Your task to perform on an android device: Go to display settings Image 0: 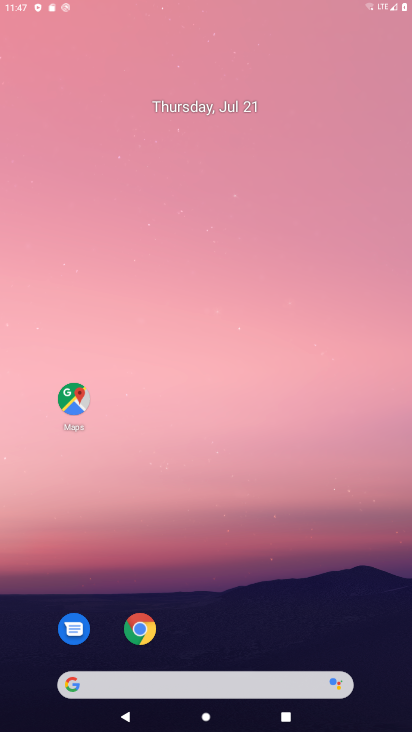
Step 0: click (160, 61)
Your task to perform on an android device: Go to display settings Image 1: 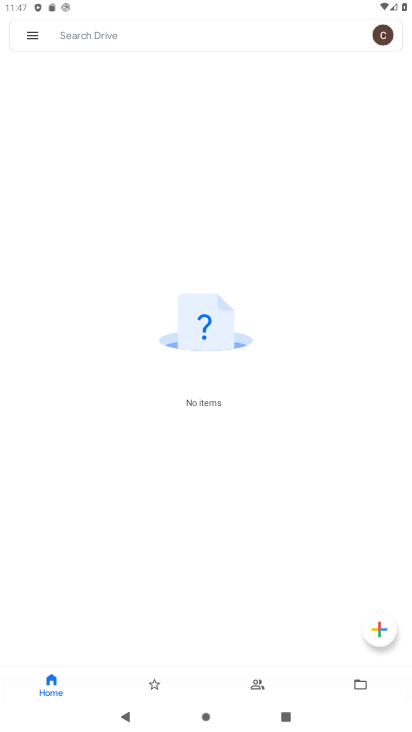
Step 1: drag from (227, 440) to (219, 53)
Your task to perform on an android device: Go to display settings Image 2: 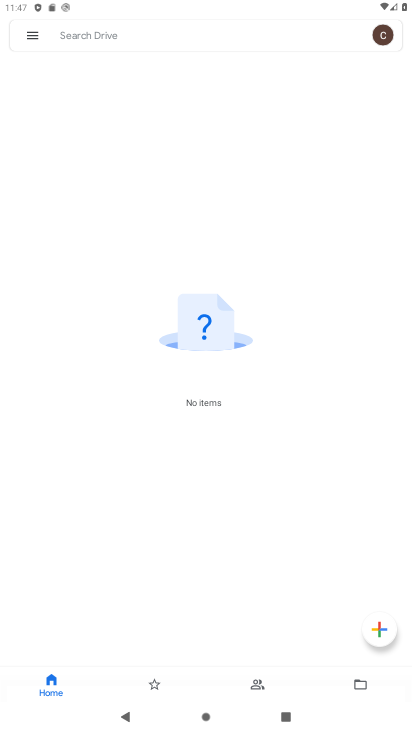
Step 2: drag from (306, 467) to (179, 100)
Your task to perform on an android device: Go to display settings Image 3: 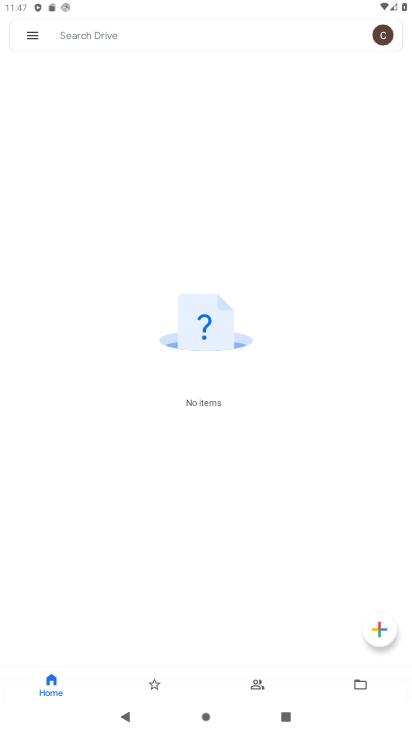
Step 3: click (170, 48)
Your task to perform on an android device: Go to display settings Image 4: 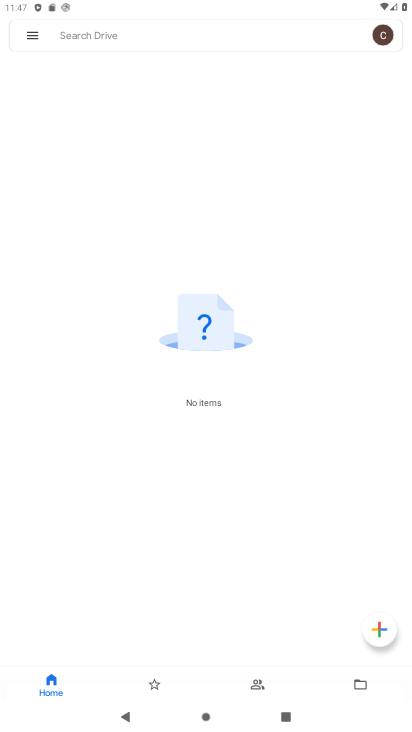
Step 4: press back button
Your task to perform on an android device: Go to display settings Image 5: 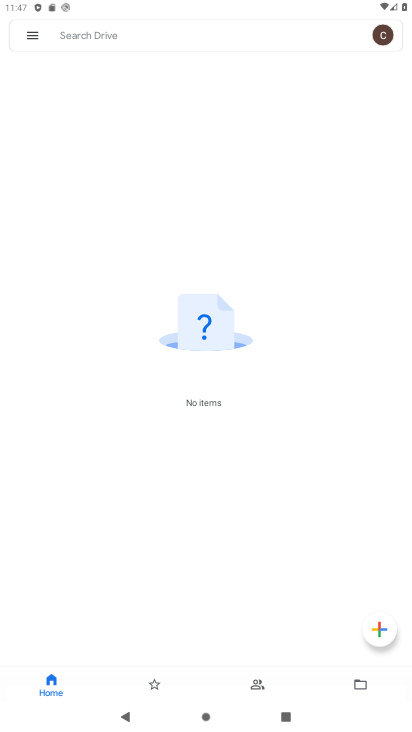
Step 5: drag from (162, 620) to (145, 175)
Your task to perform on an android device: Go to display settings Image 6: 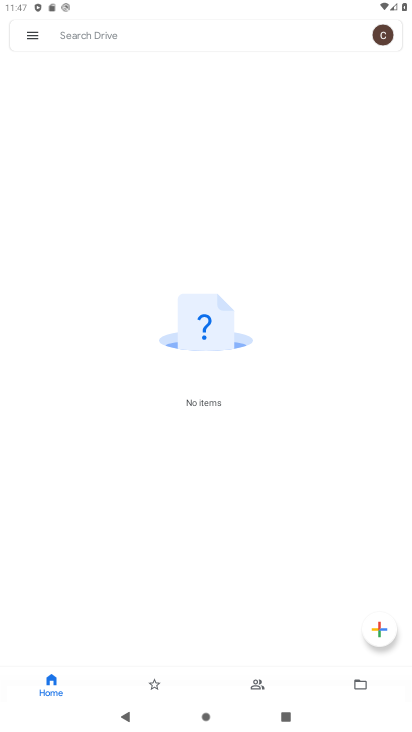
Step 6: press back button
Your task to perform on an android device: Go to display settings Image 7: 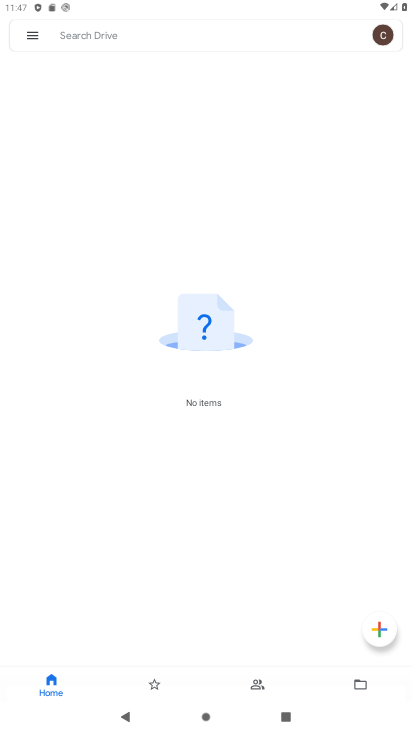
Step 7: press back button
Your task to perform on an android device: Go to display settings Image 8: 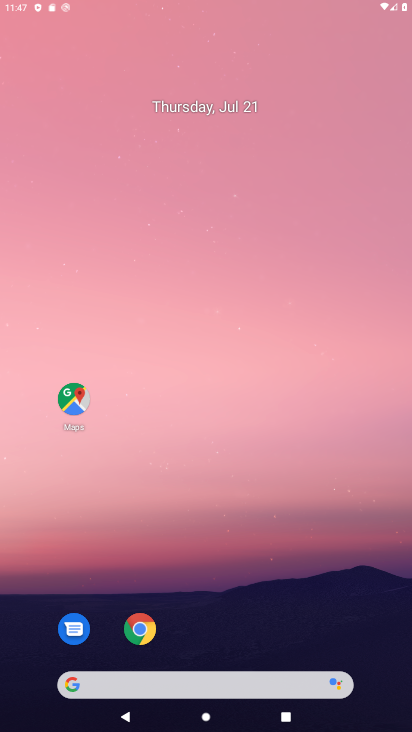
Step 8: press back button
Your task to perform on an android device: Go to display settings Image 9: 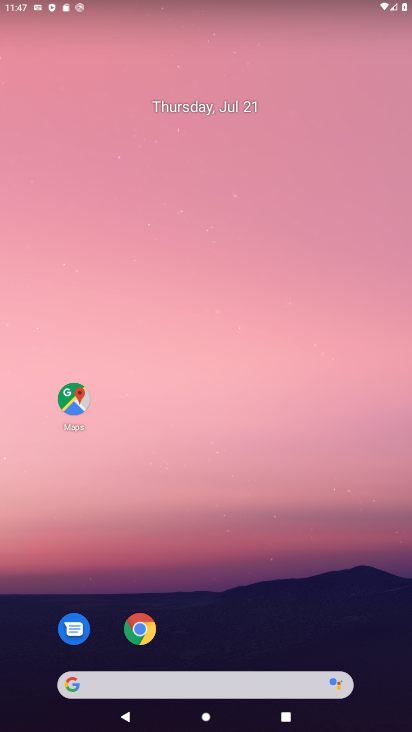
Step 9: drag from (225, 416) to (190, 155)
Your task to perform on an android device: Go to display settings Image 10: 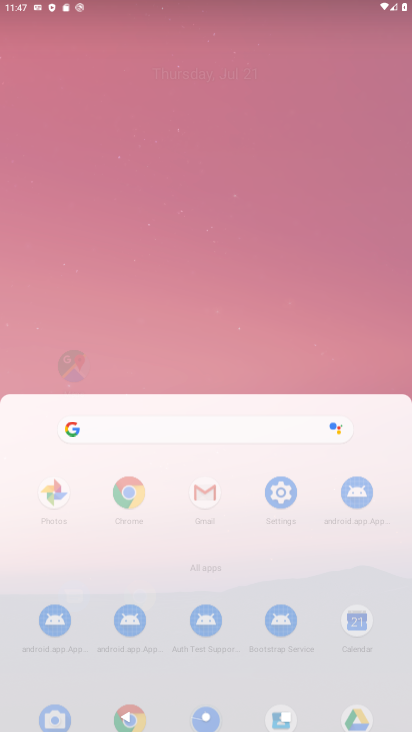
Step 10: drag from (229, 509) to (170, 156)
Your task to perform on an android device: Go to display settings Image 11: 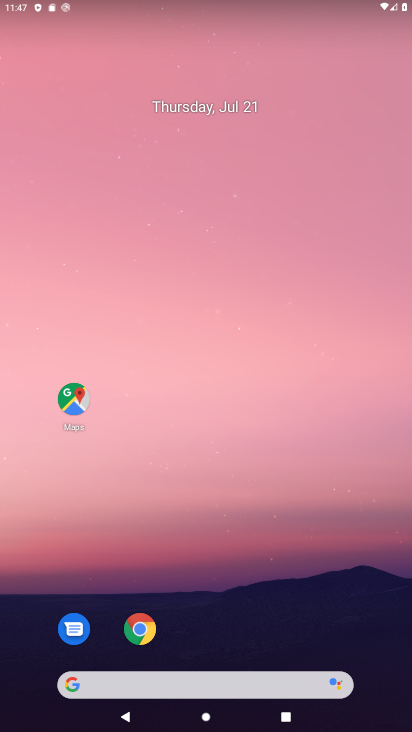
Step 11: drag from (220, 493) to (173, 166)
Your task to perform on an android device: Go to display settings Image 12: 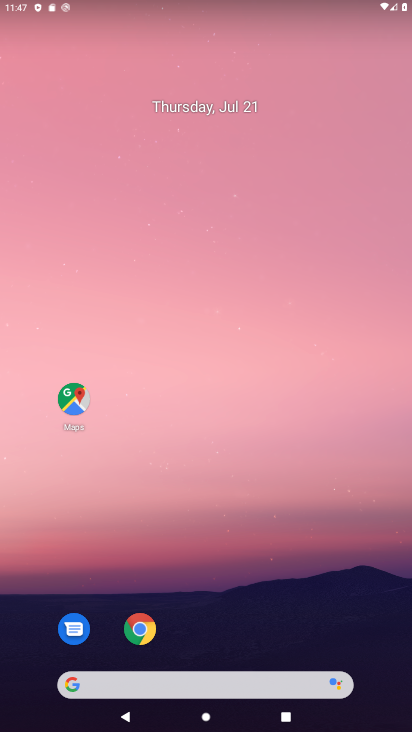
Step 12: drag from (237, 506) to (252, 21)
Your task to perform on an android device: Go to display settings Image 13: 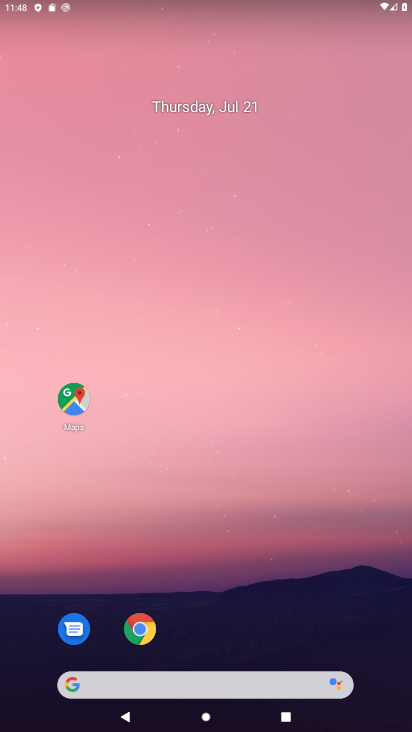
Step 13: drag from (272, 371) to (247, 264)
Your task to perform on an android device: Go to display settings Image 14: 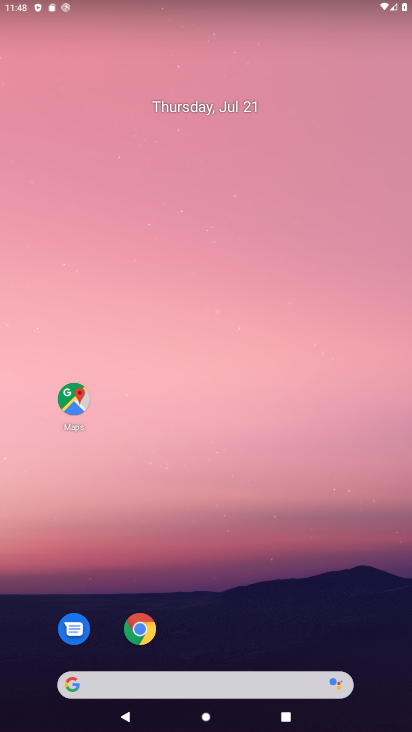
Step 14: drag from (256, 533) to (220, 311)
Your task to perform on an android device: Go to display settings Image 15: 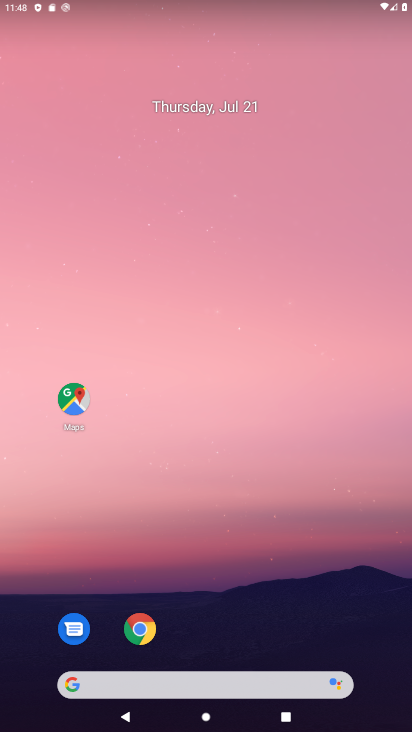
Step 15: drag from (231, 420) to (195, 101)
Your task to perform on an android device: Go to display settings Image 16: 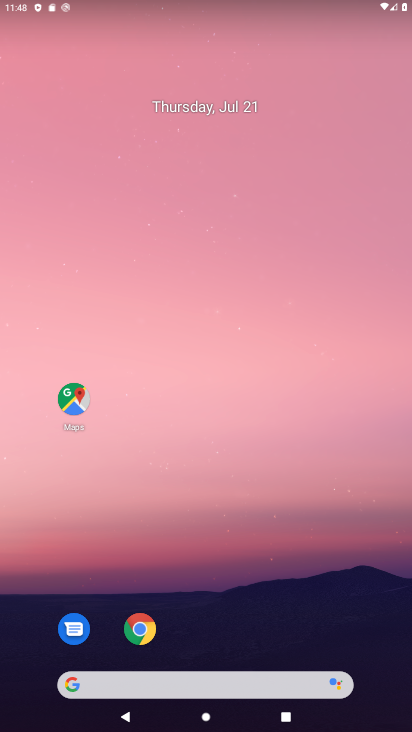
Step 16: drag from (215, 423) to (191, 157)
Your task to perform on an android device: Go to display settings Image 17: 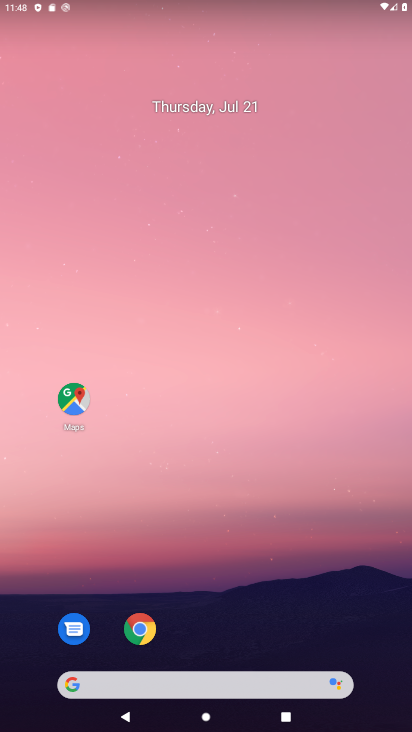
Step 17: drag from (193, 384) to (167, 95)
Your task to perform on an android device: Go to display settings Image 18: 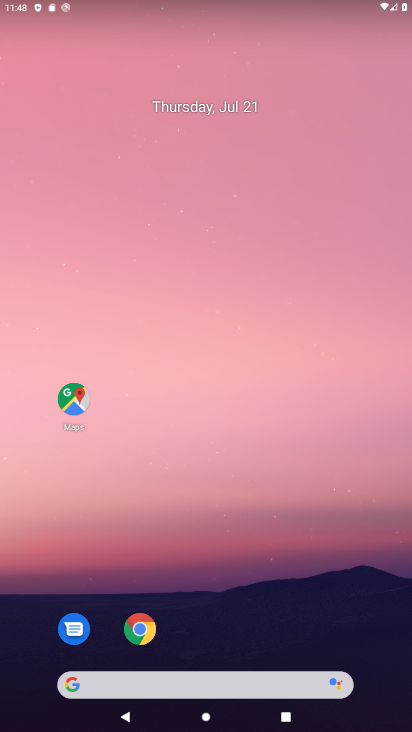
Step 18: drag from (167, 467) to (153, 183)
Your task to perform on an android device: Go to display settings Image 19: 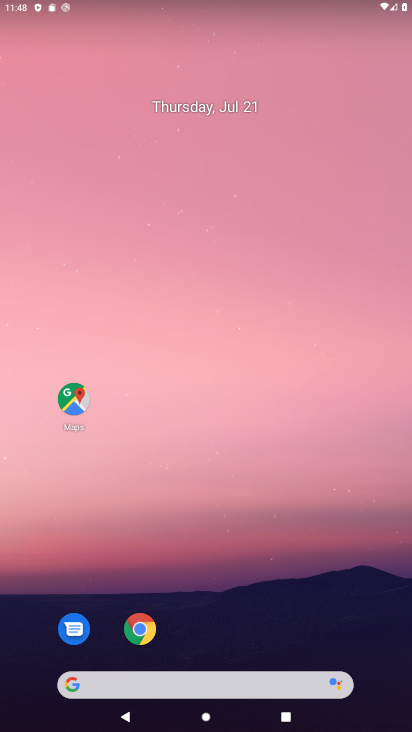
Step 19: drag from (198, 419) to (178, 256)
Your task to perform on an android device: Go to display settings Image 20: 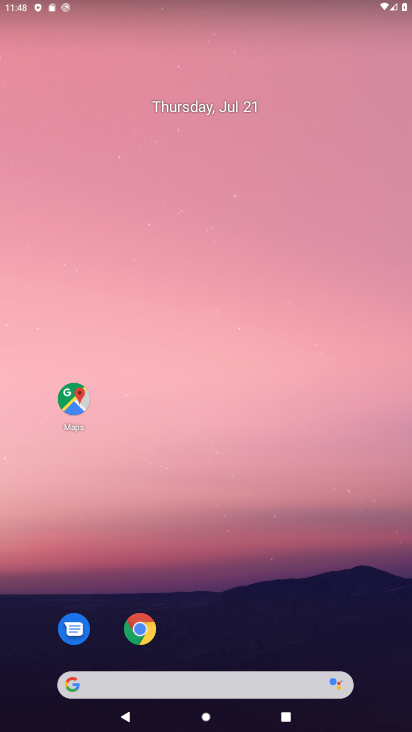
Step 20: drag from (214, 498) to (169, 40)
Your task to perform on an android device: Go to display settings Image 21: 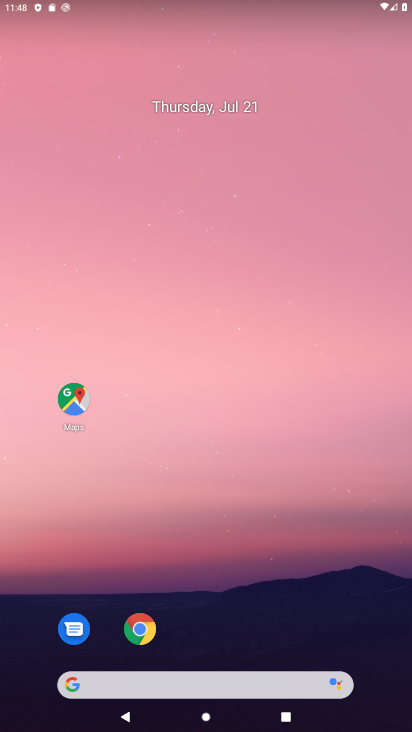
Step 21: drag from (226, 580) to (183, 17)
Your task to perform on an android device: Go to display settings Image 22: 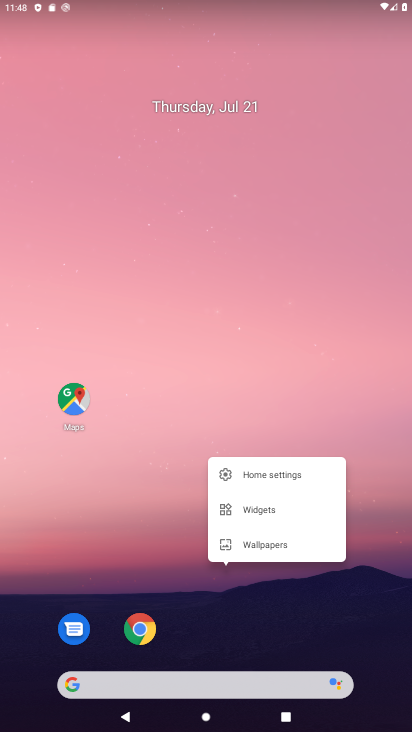
Step 22: drag from (163, 297) to (118, 31)
Your task to perform on an android device: Go to display settings Image 23: 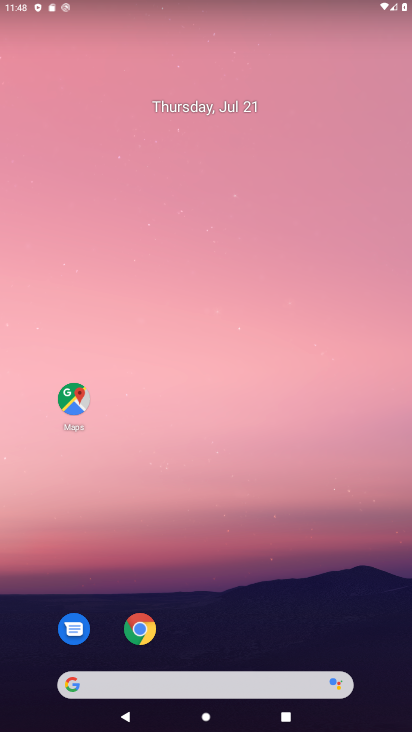
Step 23: drag from (233, 523) to (194, 133)
Your task to perform on an android device: Go to display settings Image 24: 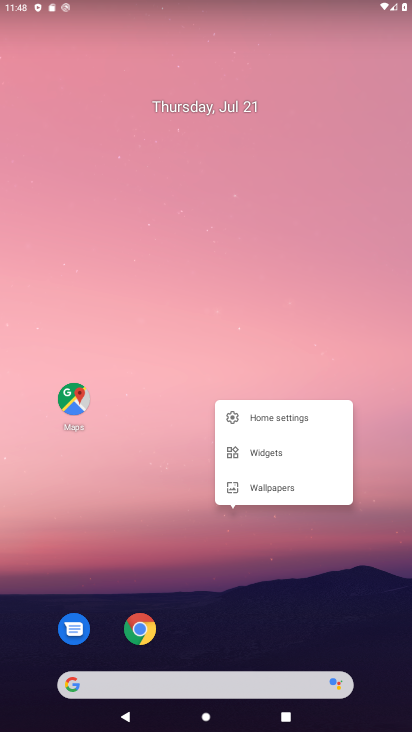
Step 24: drag from (173, 594) to (90, 75)
Your task to perform on an android device: Go to display settings Image 25: 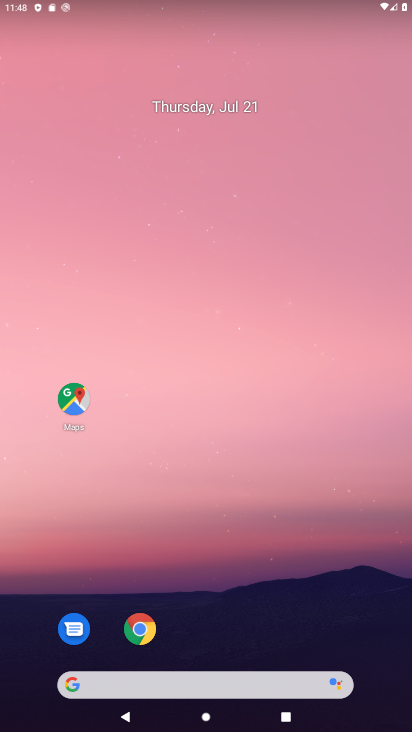
Step 25: drag from (155, 439) to (118, 151)
Your task to perform on an android device: Go to display settings Image 26: 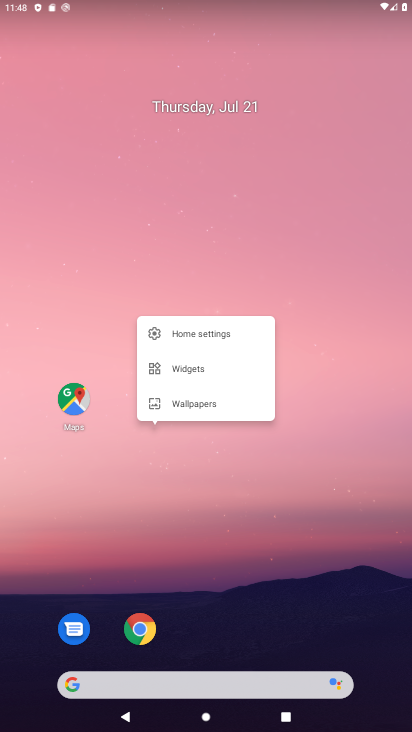
Step 26: click (154, 230)
Your task to perform on an android device: Go to display settings Image 27: 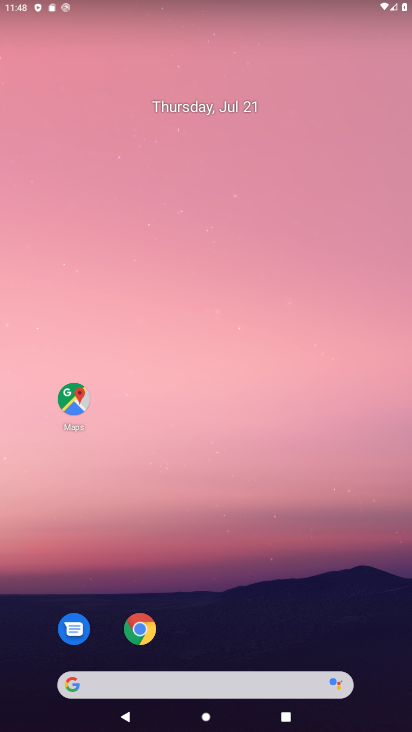
Step 27: drag from (155, 234) to (102, 36)
Your task to perform on an android device: Go to display settings Image 28: 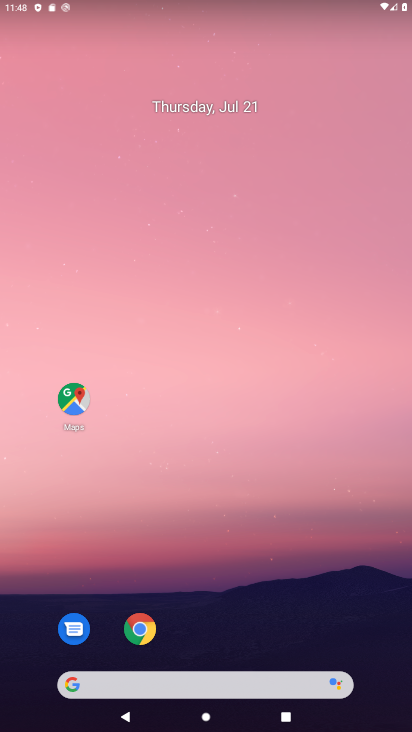
Step 28: drag from (151, 469) to (87, 3)
Your task to perform on an android device: Go to display settings Image 29: 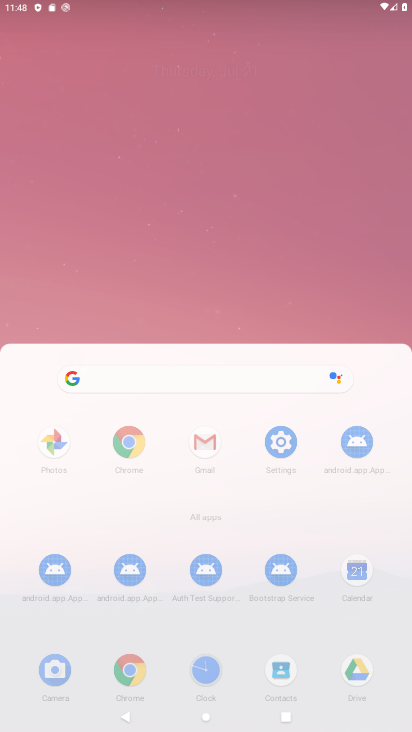
Step 29: drag from (83, 5) to (161, 26)
Your task to perform on an android device: Go to display settings Image 30: 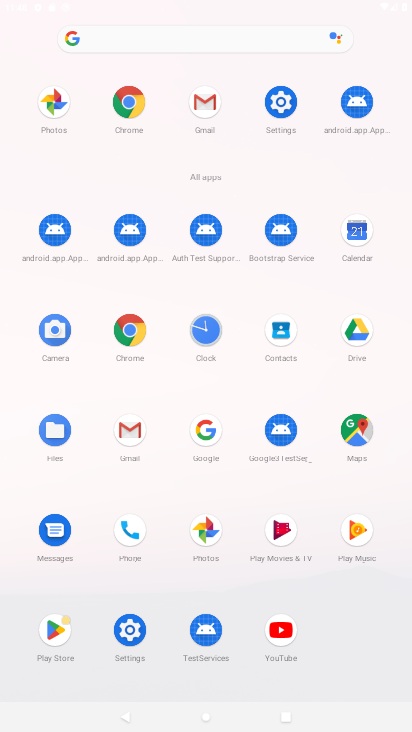
Step 30: drag from (190, 353) to (72, 29)
Your task to perform on an android device: Go to display settings Image 31: 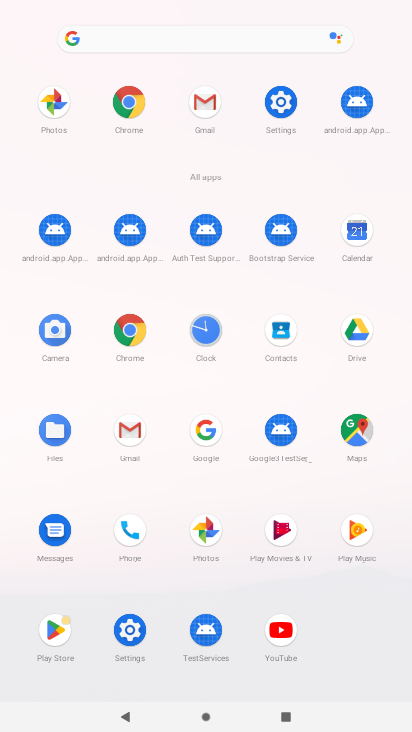
Step 31: drag from (141, 160) to (141, 126)
Your task to perform on an android device: Go to display settings Image 32: 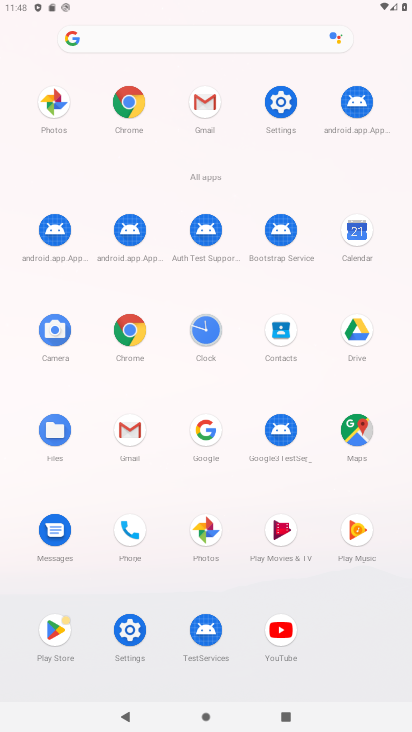
Step 32: drag from (142, 292) to (57, 253)
Your task to perform on an android device: Go to display settings Image 33: 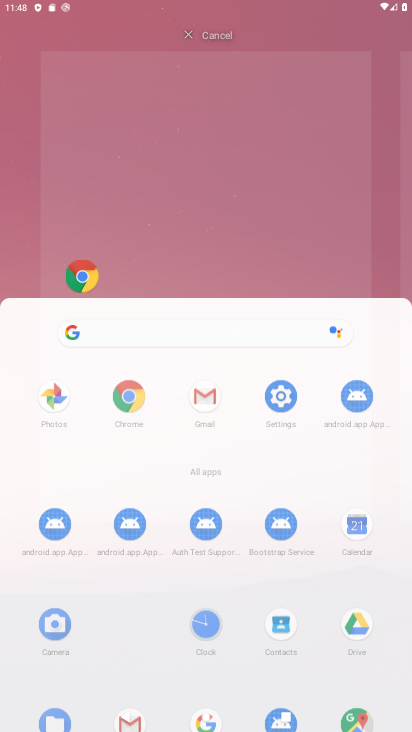
Step 33: drag from (113, 651) to (179, 524)
Your task to perform on an android device: Go to display settings Image 34: 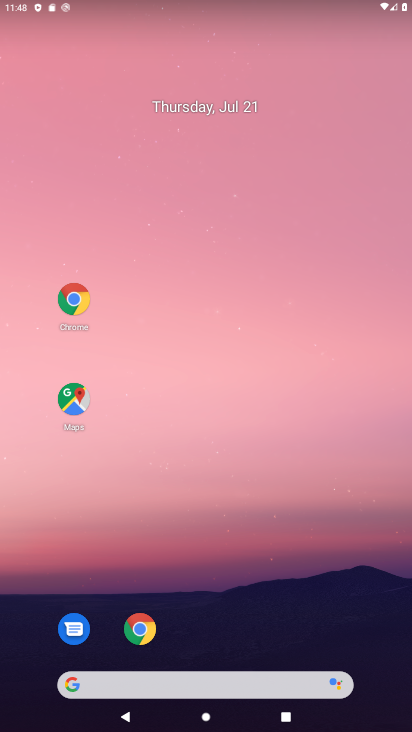
Step 34: click (156, 389)
Your task to perform on an android device: Go to display settings Image 35: 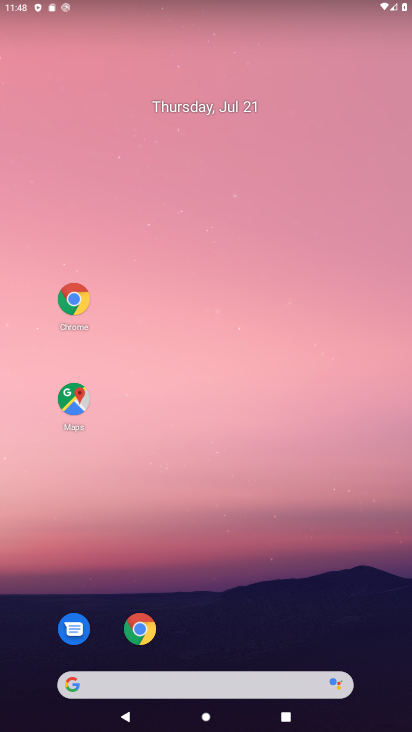
Step 35: click (287, 115)
Your task to perform on an android device: Go to display settings Image 36: 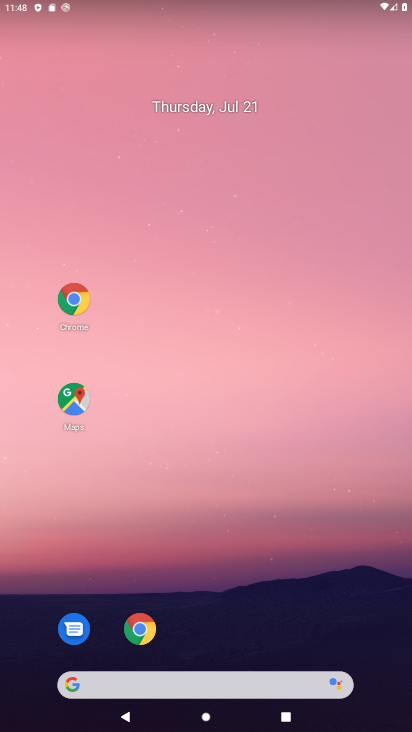
Step 36: click (296, 125)
Your task to perform on an android device: Go to display settings Image 37: 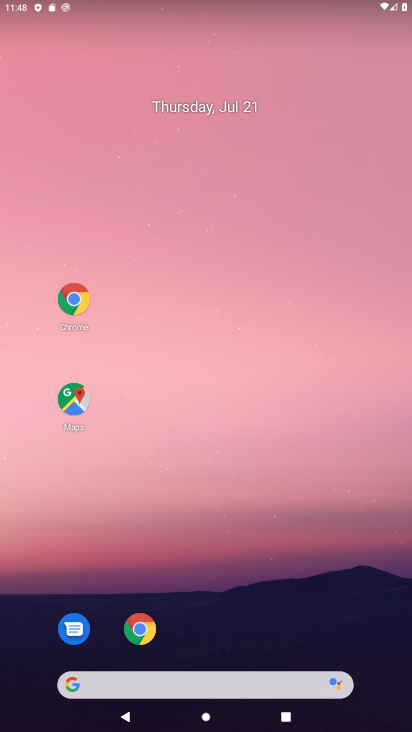
Step 37: drag from (179, 199) to (231, 195)
Your task to perform on an android device: Go to display settings Image 38: 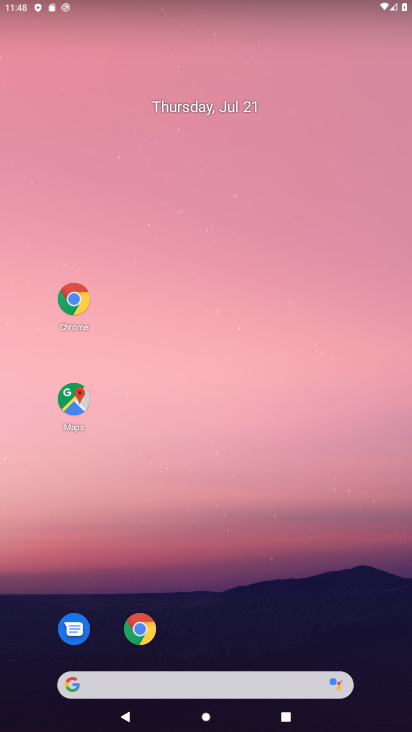
Step 38: drag from (221, 207) to (262, 229)
Your task to perform on an android device: Go to display settings Image 39: 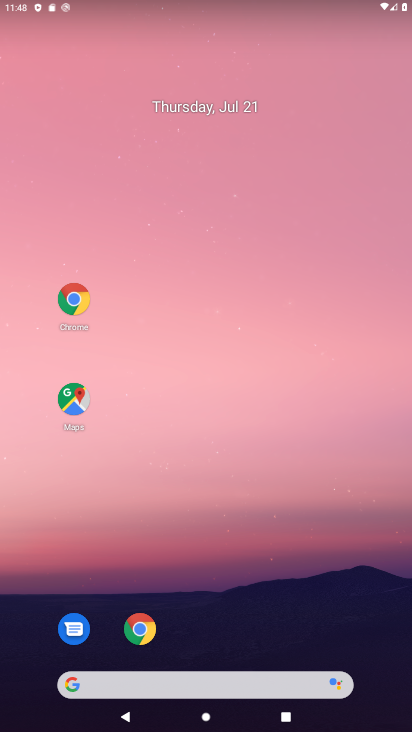
Step 39: drag from (288, 492) to (253, 216)
Your task to perform on an android device: Go to display settings Image 40: 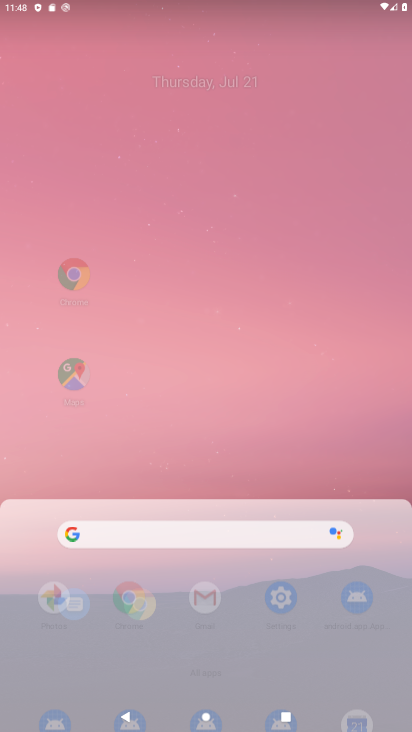
Step 40: drag from (224, 617) to (180, 177)
Your task to perform on an android device: Go to display settings Image 41: 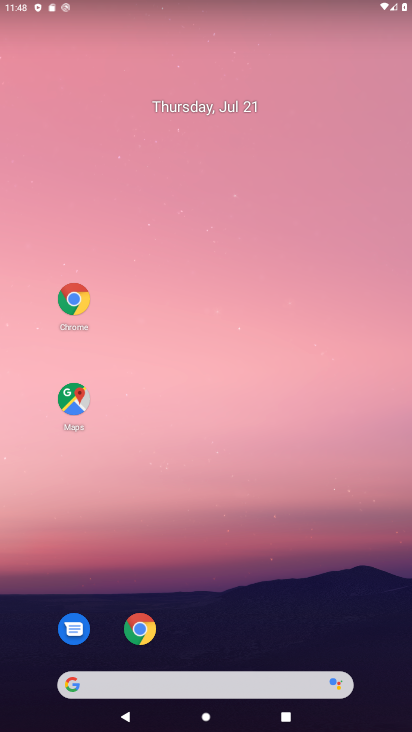
Step 41: drag from (209, 629) to (200, 249)
Your task to perform on an android device: Go to display settings Image 42: 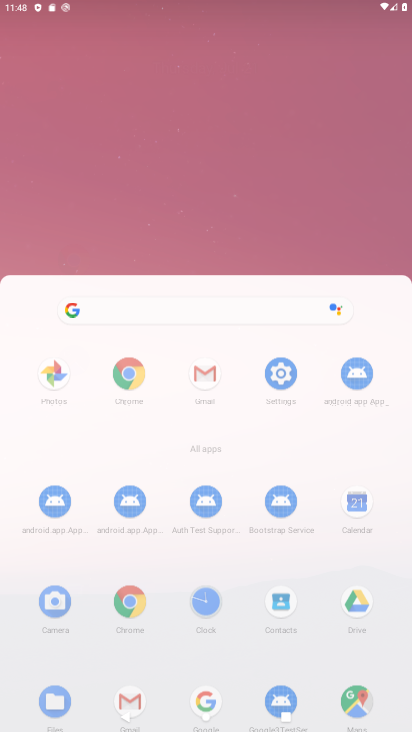
Step 42: drag from (256, 595) to (282, 121)
Your task to perform on an android device: Go to display settings Image 43: 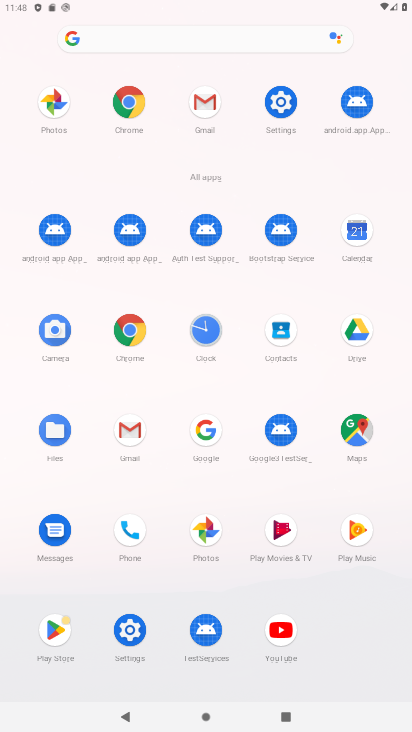
Step 43: click (274, 110)
Your task to perform on an android device: Go to display settings Image 44: 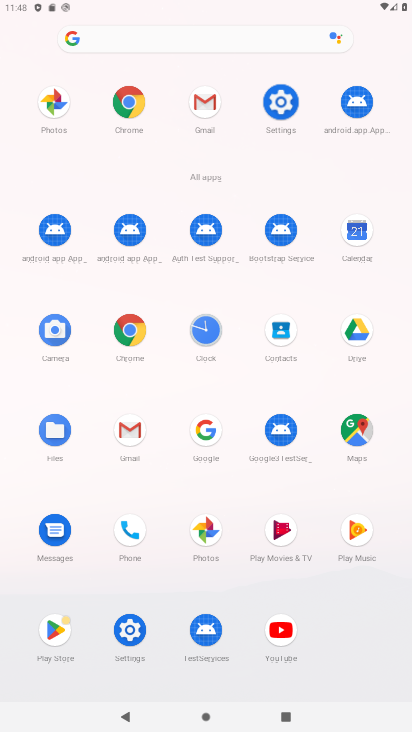
Step 44: click (264, 132)
Your task to perform on an android device: Go to display settings Image 45: 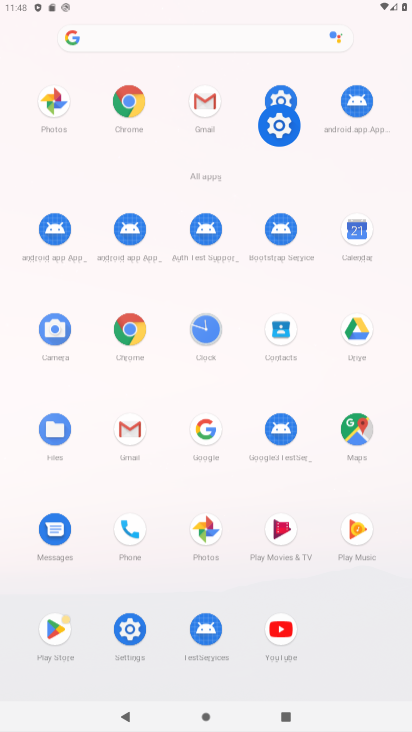
Step 45: click (264, 134)
Your task to perform on an android device: Go to display settings Image 46: 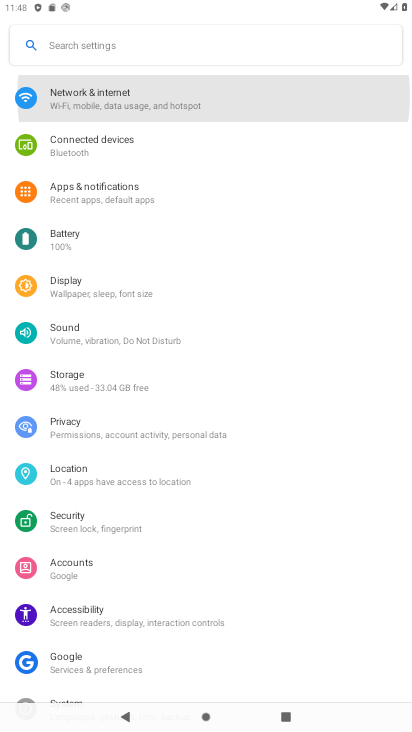
Step 46: click (265, 135)
Your task to perform on an android device: Go to display settings Image 47: 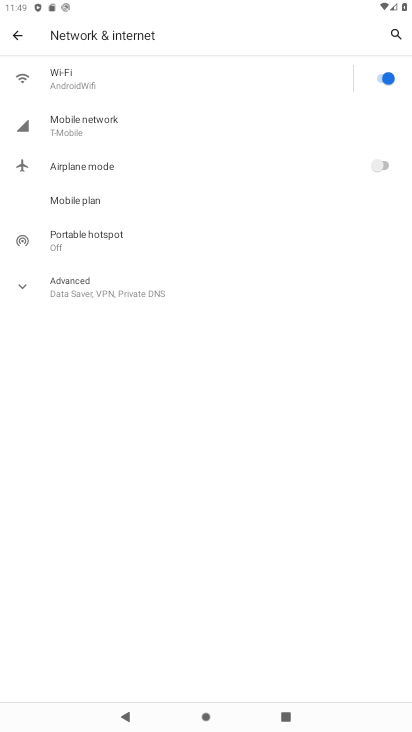
Step 47: click (284, 147)
Your task to perform on an android device: Go to display settings Image 48: 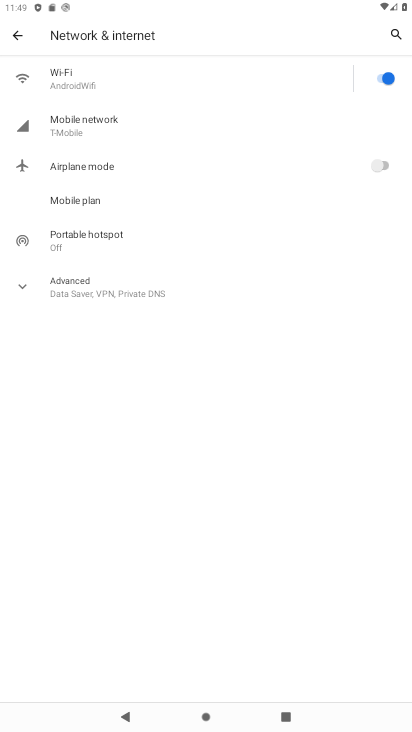
Step 48: click (24, 40)
Your task to perform on an android device: Go to display settings Image 49: 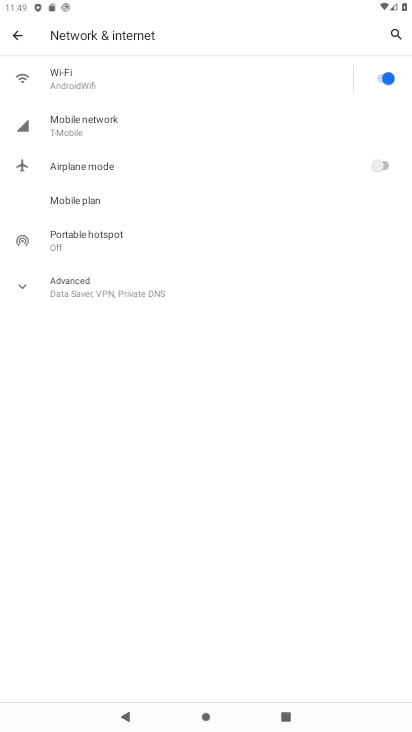
Step 49: click (32, 62)
Your task to perform on an android device: Go to display settings Image 50: 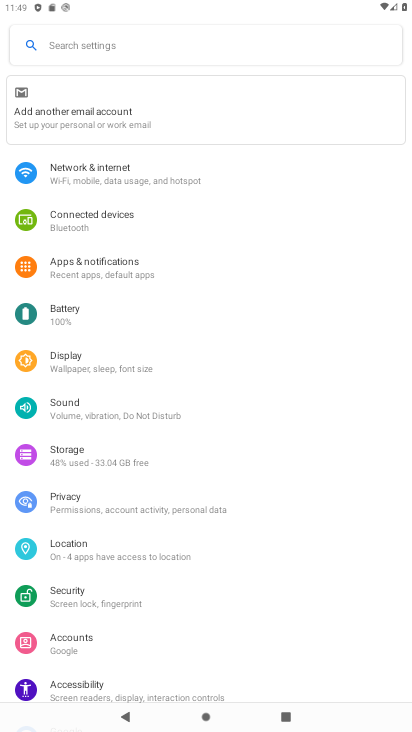
Step 50: click (21, 30)
Your task to perform on an android device: Go to display settings Image 51: 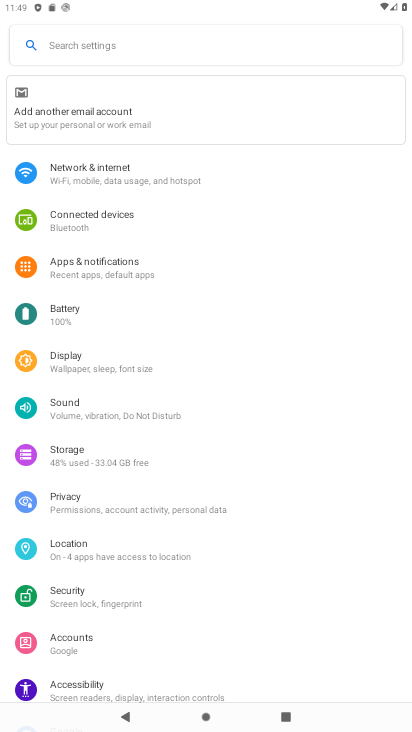
Step 51: click (7, 49)
Your task to perform on an android device: Go to display settings Image 52: 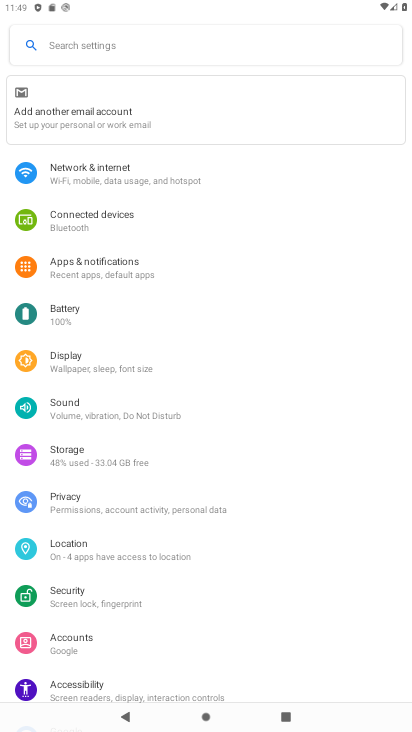
Step 52: click (69, 352)
Your task to perform on an android device: Go to display settings Image 53: 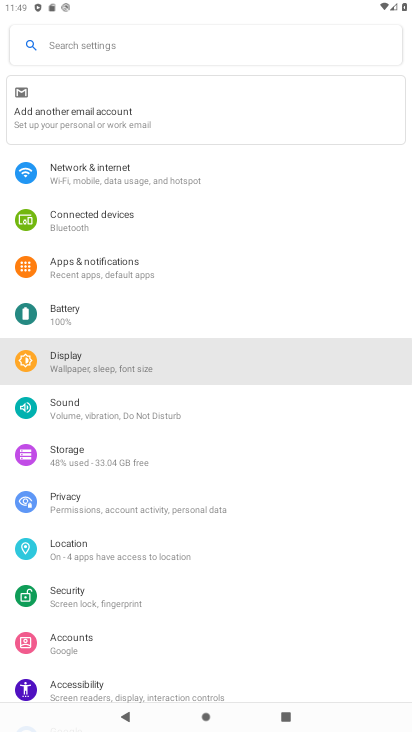
Step 53: click (68, 359)
Your task to perform on an android device: Go to display settings Image 54: 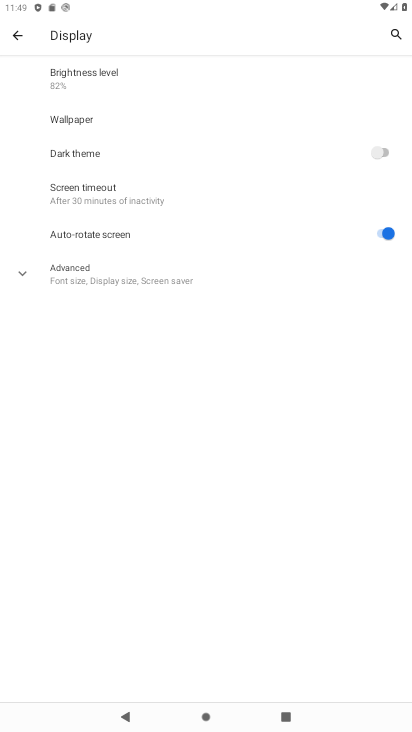
Step 54: task complete